Your task to perform on an android device: Do I have any events today? Image 0: 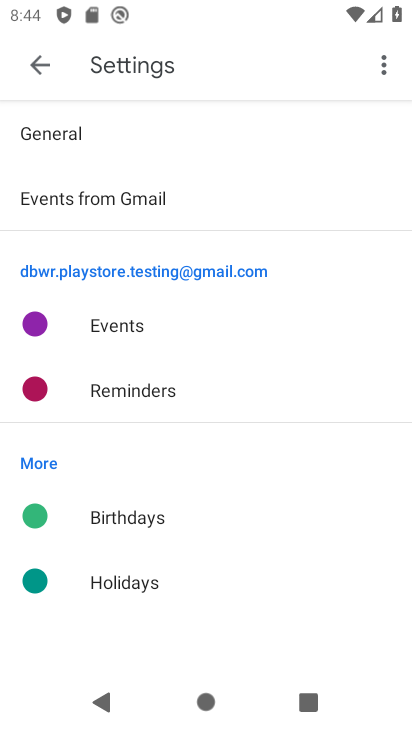
Step 0: press home button
Your task to perform on an android device: Do I have any events today? Image 1: 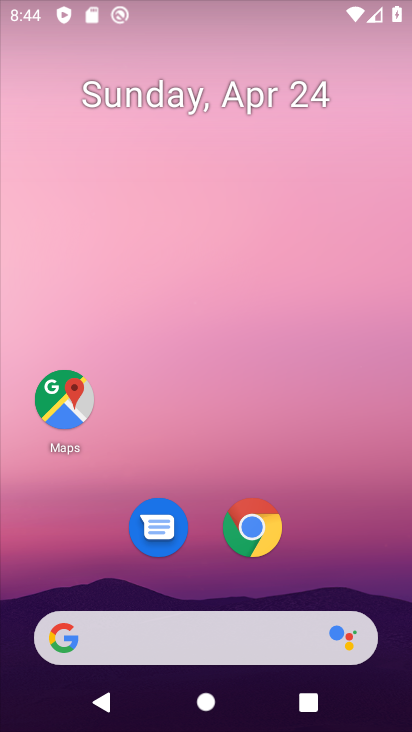
Step 1: drag from (398, 631) to (263, 3)
Your task to perform on an android device: Do I have any events today? Image 2: 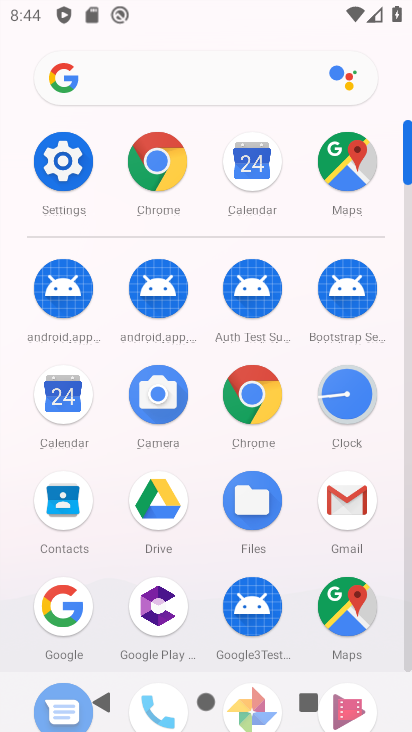
Step 2: click (54, 395)
Your task to perform on an android device: Do I have any events today? Image 3: 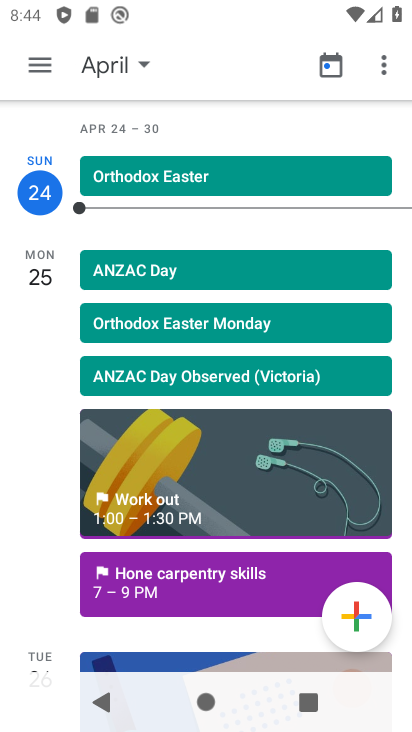
Step 3: click (120, 73)
Your task to perform on an android device: Do I have any events today? Image 4: 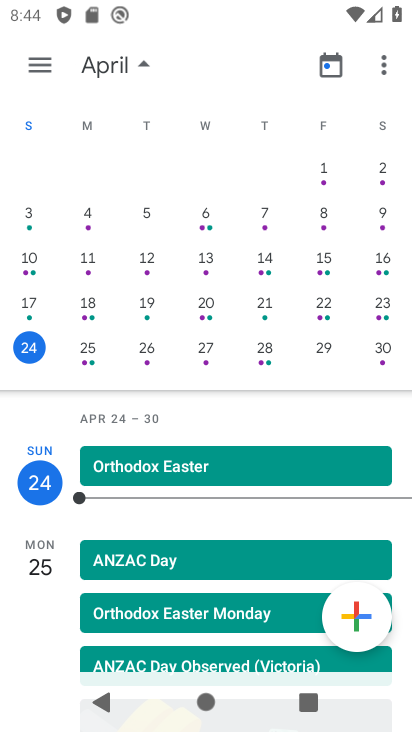
Step 4: click (29, 66)
Your task to perform on an android device: Do I have any events today? Image 5: 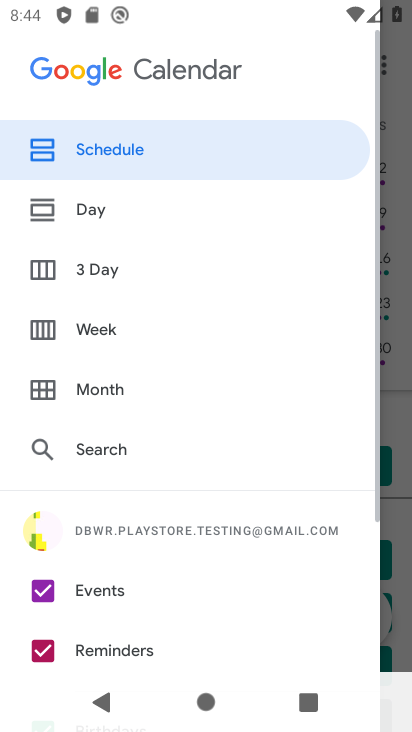
Step 5: click (155, 154)
Your task to perform on an android device: Do I have any events today? Image 6: 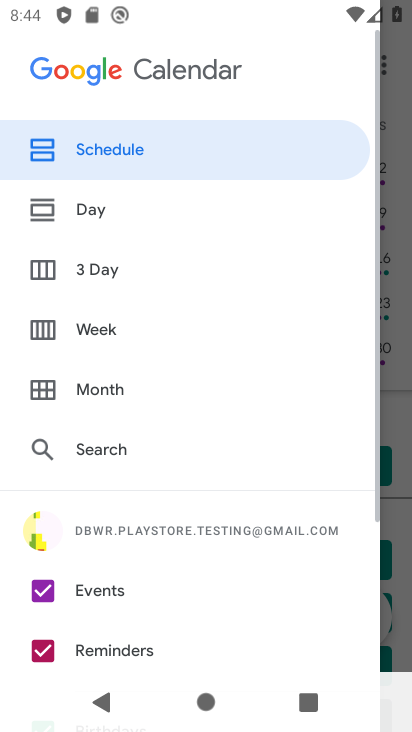
Step 6: click (282, 155)
Your task to perform on an android device: Do I have any events today? Image 7: 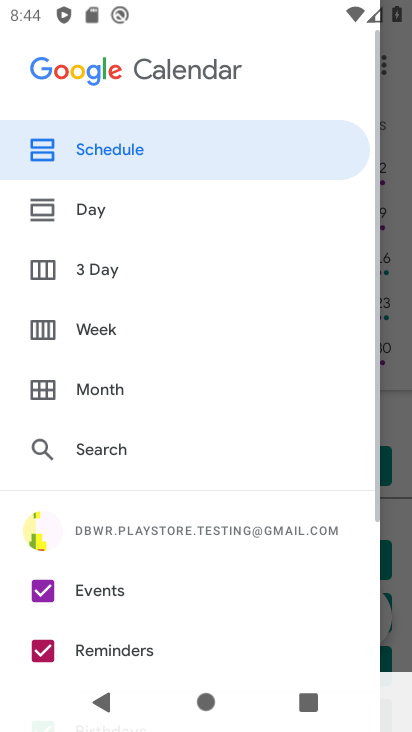
Step 7: click (34, 145)
Your task to perform on an android device: Do I have any events today? Image 8: 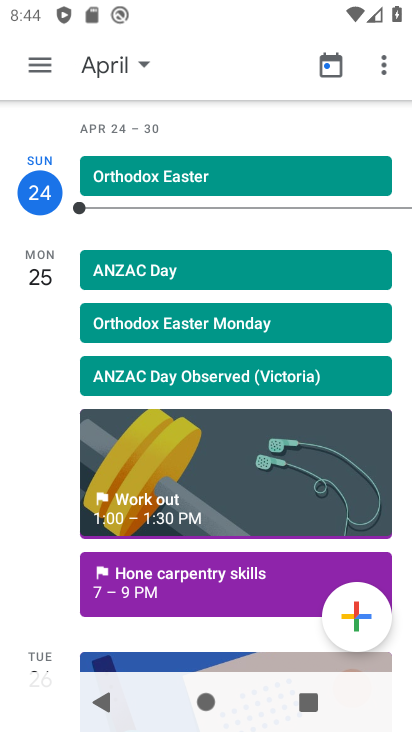
Step 8: click (43, 280)
Your task to perform on an android device: Do I have any events today? Image 9: 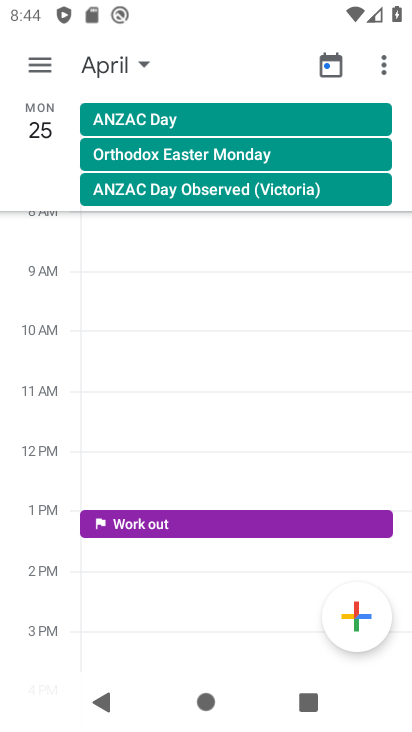
Step 9: task complete